Your task to perform on an android device: find which apps use the phone's location Image 0: 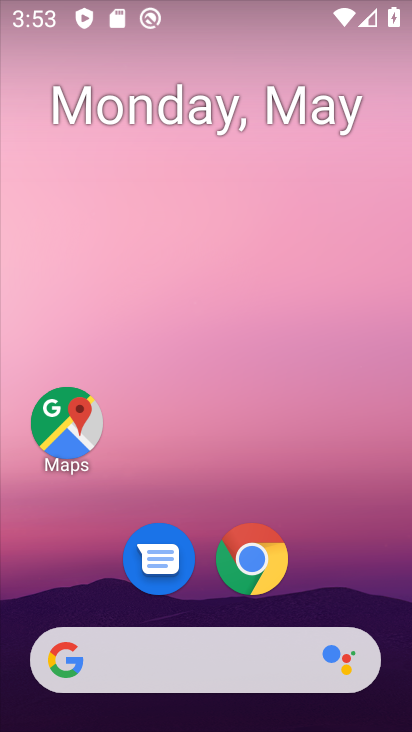
Step 0: drag from (342, 555) to (225, 27)
Your task to perform on an android device: find which apps use the phone's location Image 1: 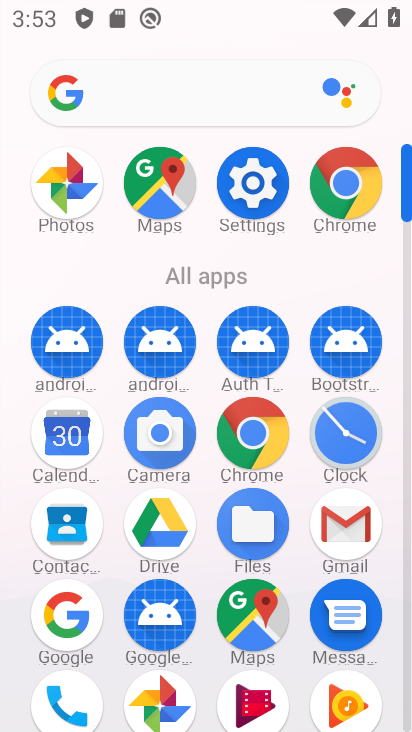
Step 1: drag from (16, 558) to (13, 228)
Your task to perform on an android device: find which apps use the phone's location Image 2: 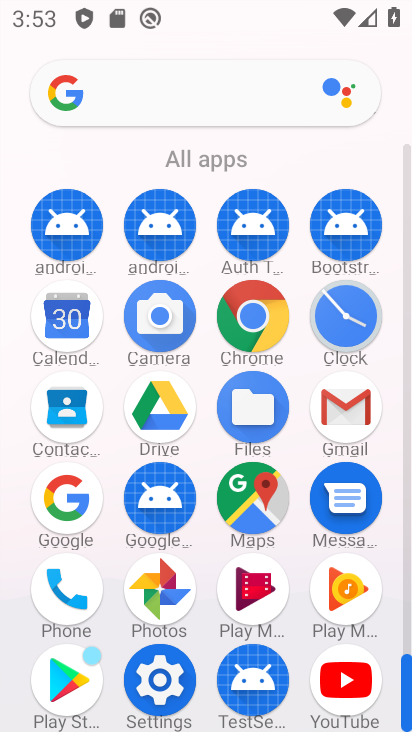
Step 2: click (159, 678)
Your task to perform on an android device: find which apps use the phone's location Image 3: 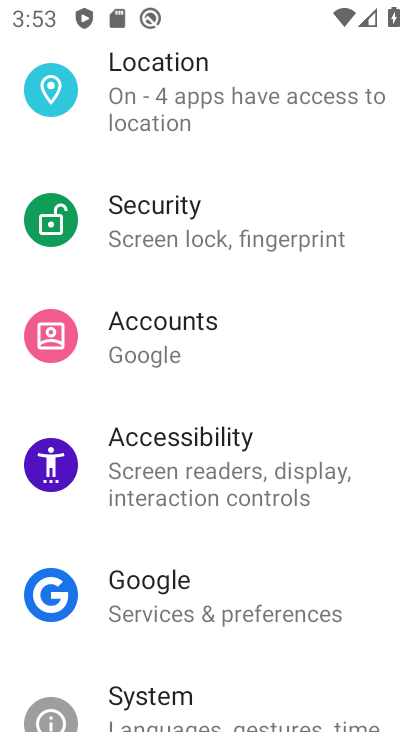
Step 3: drag from (278, 624) to (272, 166)
Your task to perform on an android device: find which apps use the phone's location Image 4: 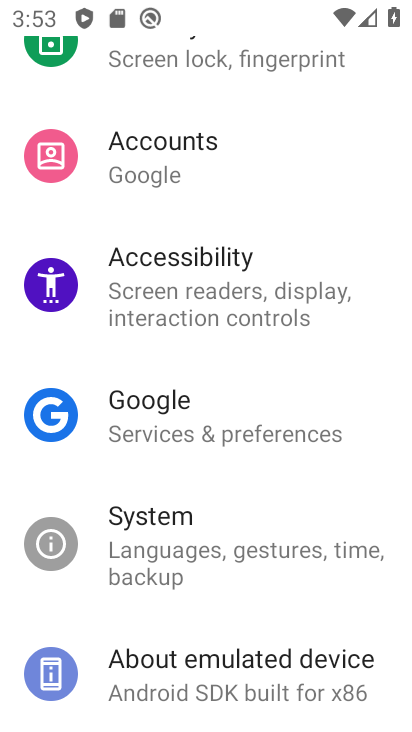
Step 4: drag from (303, 359) to (282, 149)
Your task to perform on an android device: find which apps use the phone's location Image 5: 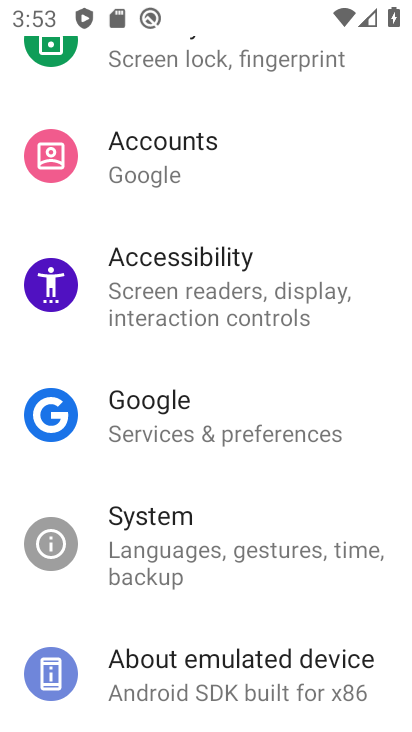
Step 5: drag from (298, 578) to (314, 177)
Your task to perform on an android device: find which apps use the phone's location Image 6: 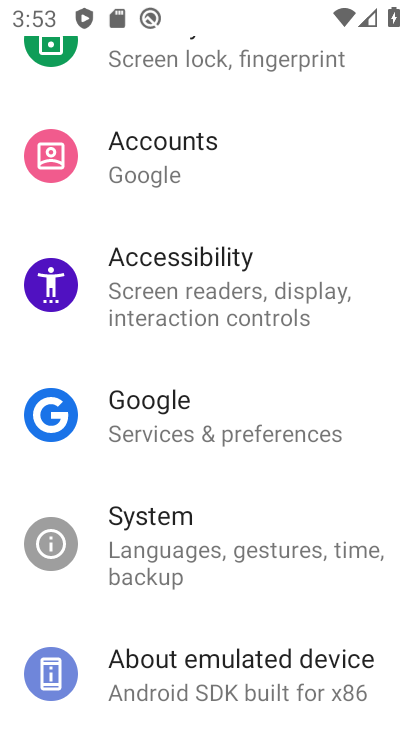
Step 6: drag from (268, 418) to (267, 491)
Your task to perform on an android device: find which apps use the phone's location Image 7: 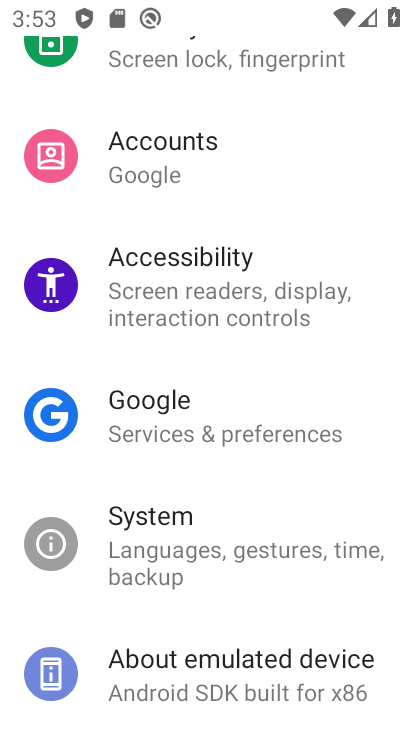
Step 7: drag from (273, 187) to (273, 555)
Your task to perform on an android device: find which apps use the phone's location Image 8: 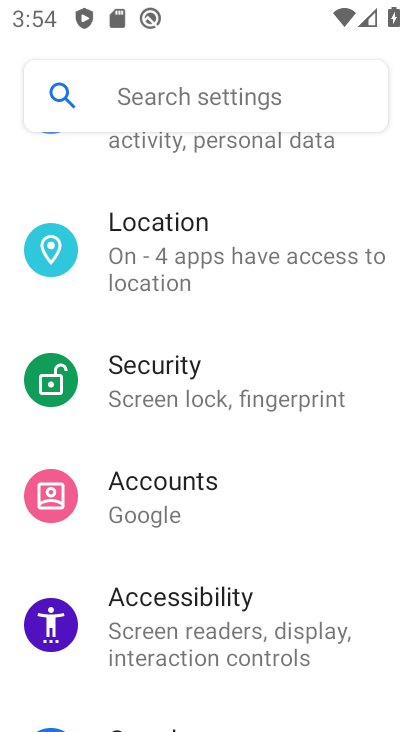
Step 8: click (235, 248)
Your task to perform on an android device: find which apps use the phone's location Image 9: 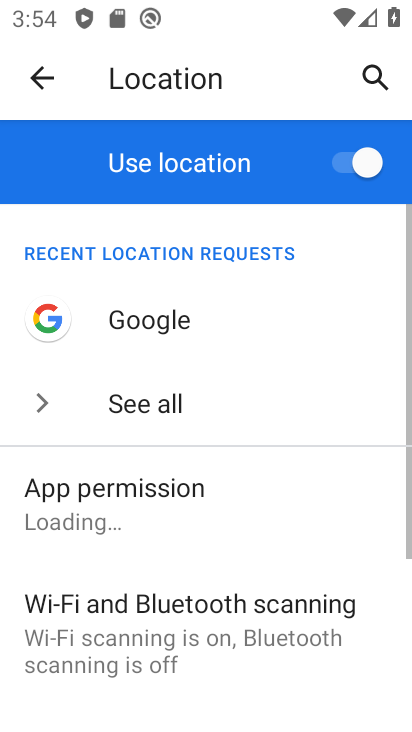
Step 9: click (123, 495)
Your task to perform on an android device: find which apps use the phone's location Image 10: 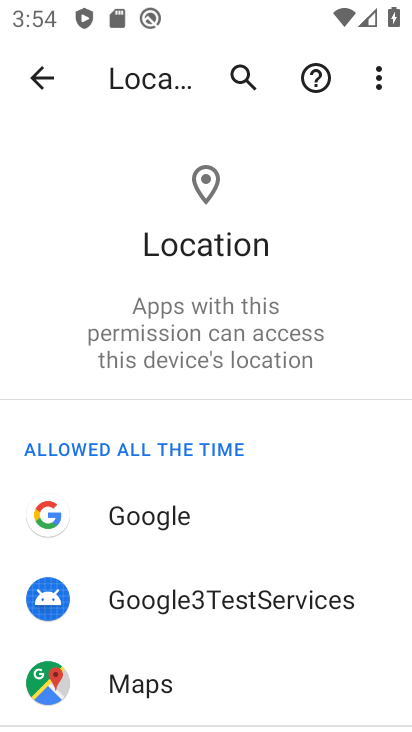
Step 10: task complete